Your task to perform on an android device: manage bookmarks in the chrome app Image 0: 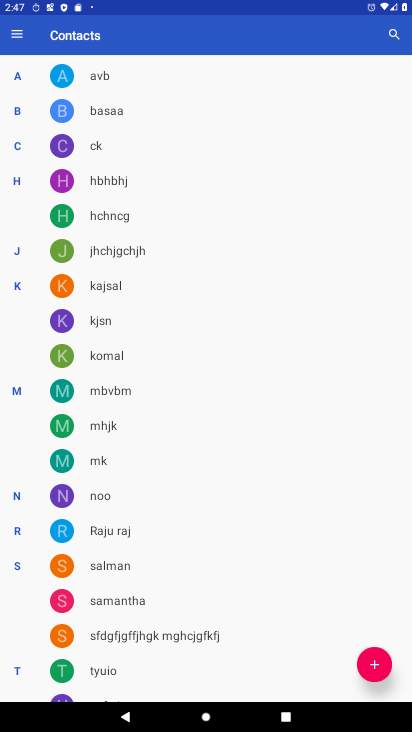
Step 0: press home button
Your task to perform on an android device: manage bookmarks in the chrome app Image 1: 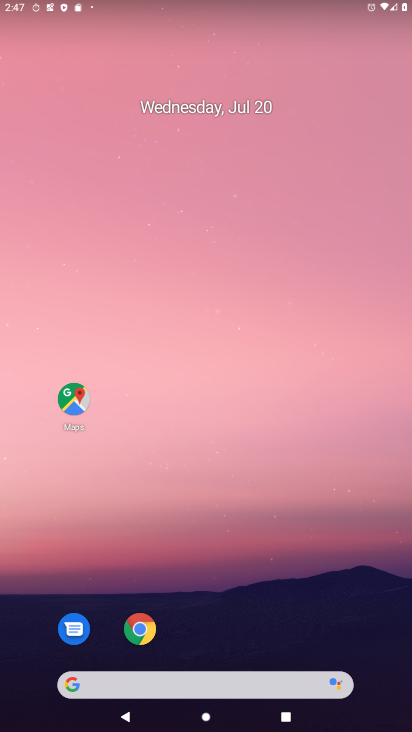
Step 1: click (136, 624)
Your task to perform on an android device: manage bookmarks in the chrome app Image 2: 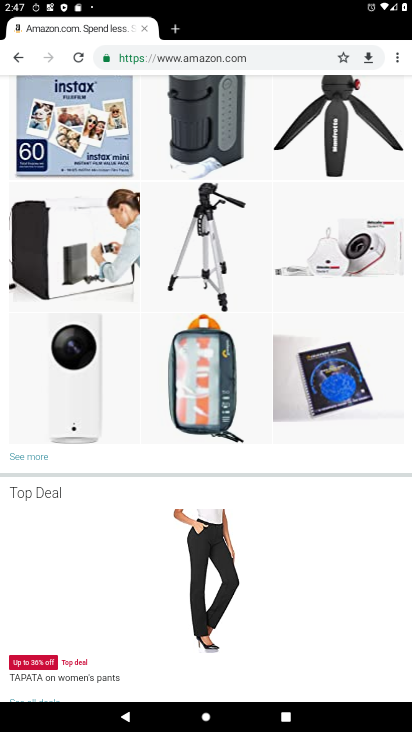
Step 2: drag from (270, 159) to (263, 629)
Your task to perform on an android device: manage bookmarks in the chrome app Image 3: 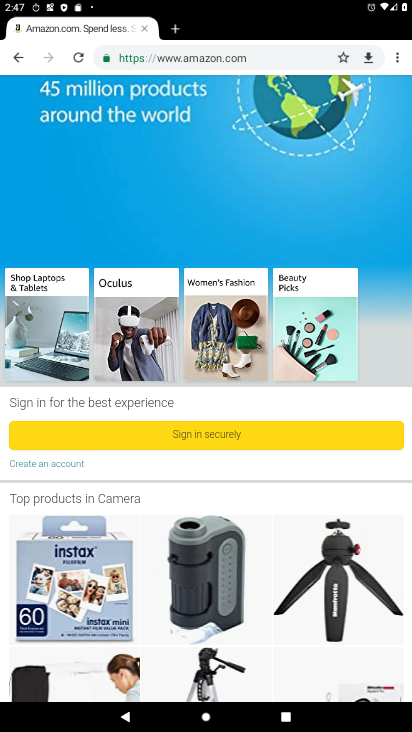
Step 3: click (400, 51)
Your task to perform on an android device: manage bookmarks in the chrome app Image 4: 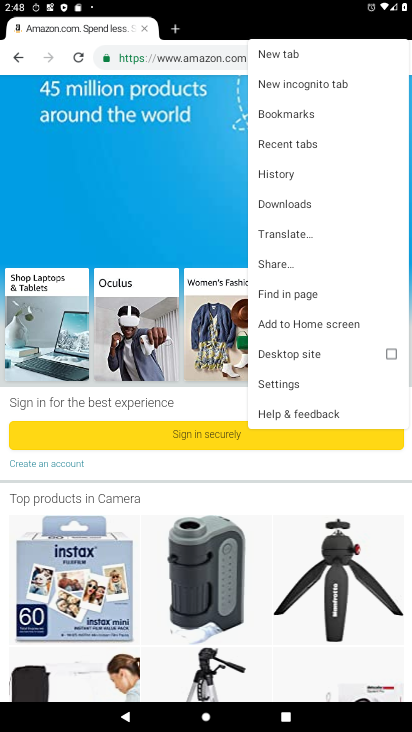
Step 4: click (323, 112)
Your task to perform on an android device: manage bookmarks in the chrome app Image 5: 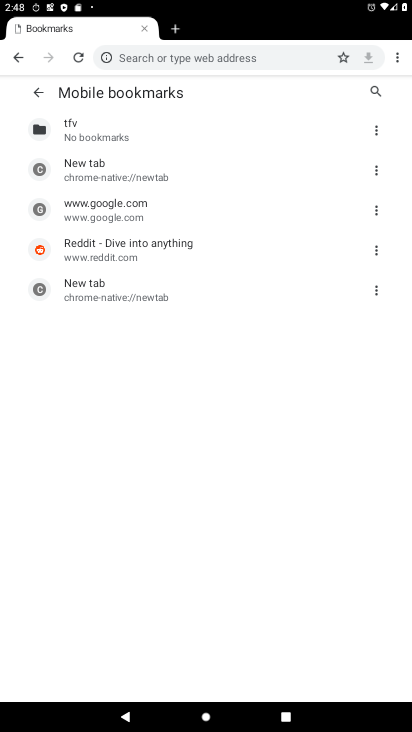
Step 5: task complete